Your task to perform on an android device: Show me productivity apps on the Play Store Image 0: 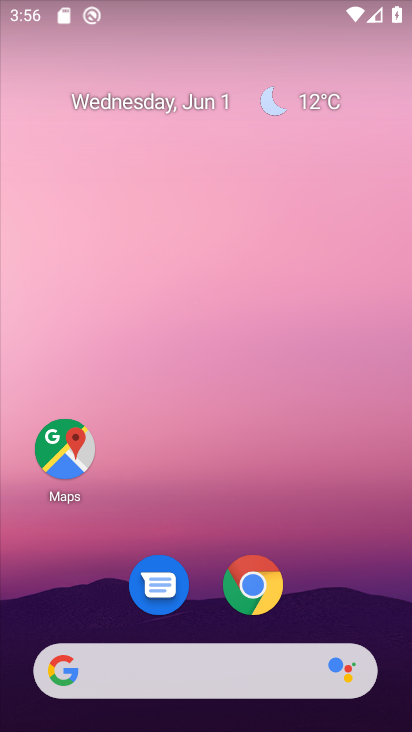
Step 0: drag from (330, 588) to (290, 3)
Your task to perform on an android device: Show me productivity apps on the Play Store Image 1: 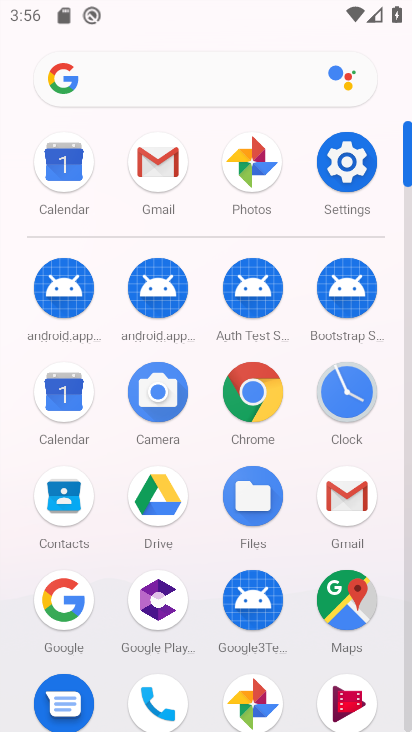
Step 1: drag from (190, 612) to (184, 288)
Your task to perform on an android device: Show me productivity apps on the Play Store Image 2: 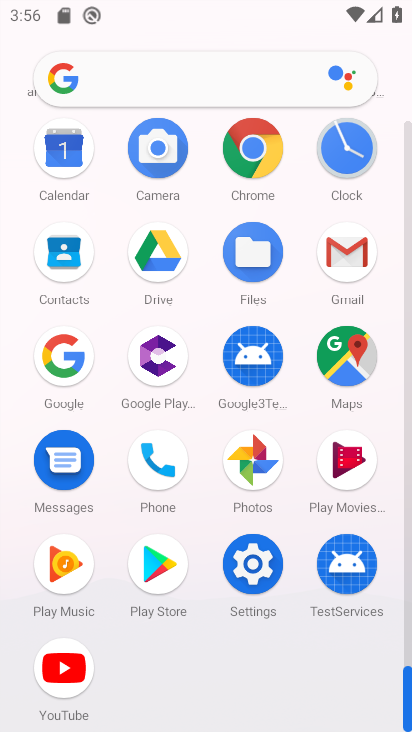
Step 2: click (162, 544)
Your task to perform on an android device: Show me productivity apps on the Play Store Image 3: 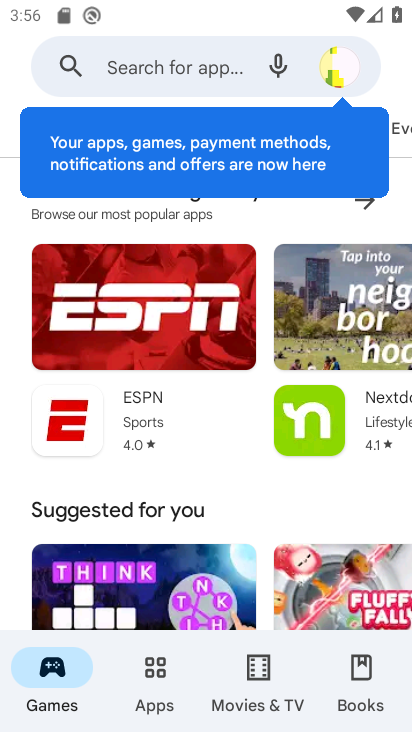
Step 3: click (194, 52)
Your task to perform on an android device: Show me productivity apps on the Play Store Image 4: 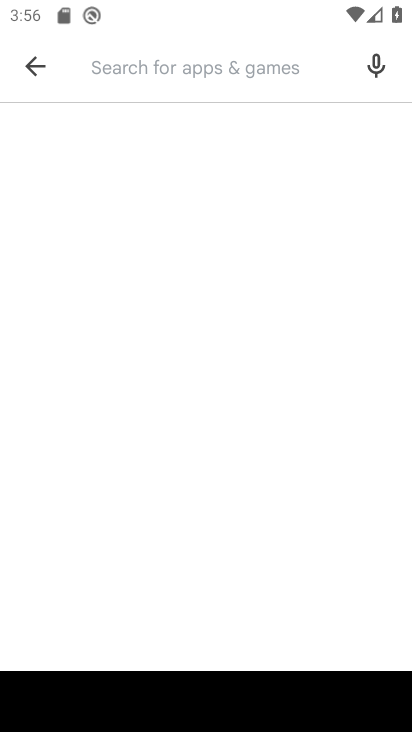
Step 4: click (34, 61)
Your task to perform on an android device: Show me productivity apps on the Play Store Image 5: 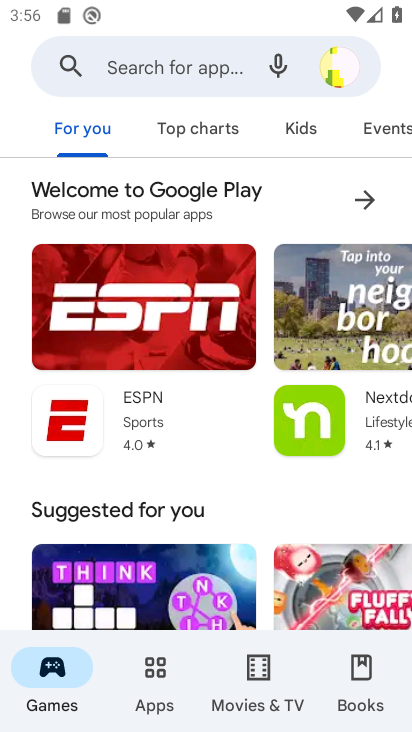
Step 5: click (146, 665)
Your task to perform on an android device: Show me productivity apps on the Play Store Image 6: 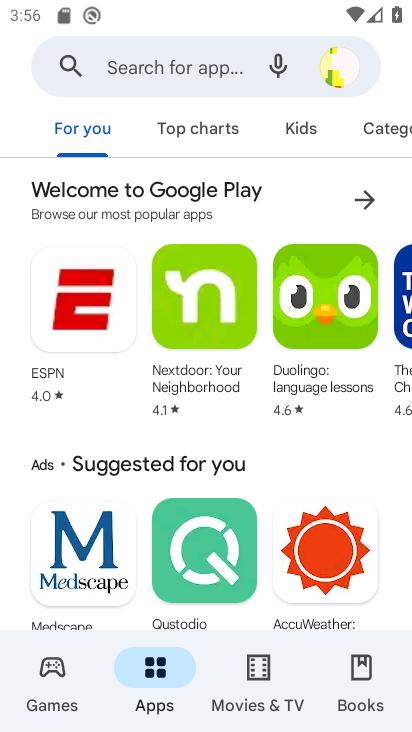
Step 6: click (382, 131)
Your task to perform on an android device: Show me productivity apps on the Play Store Image 7: 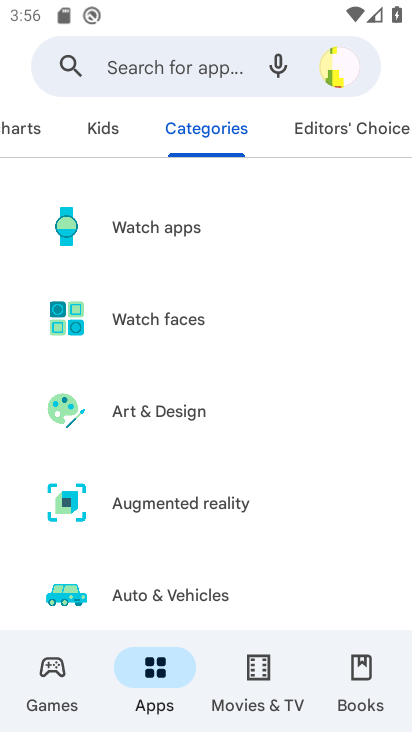
Step 7: drag from (243, 568) to (255, 4)
Your task to perform on an android device: Show me productivity apps on the Play Store Image 8: 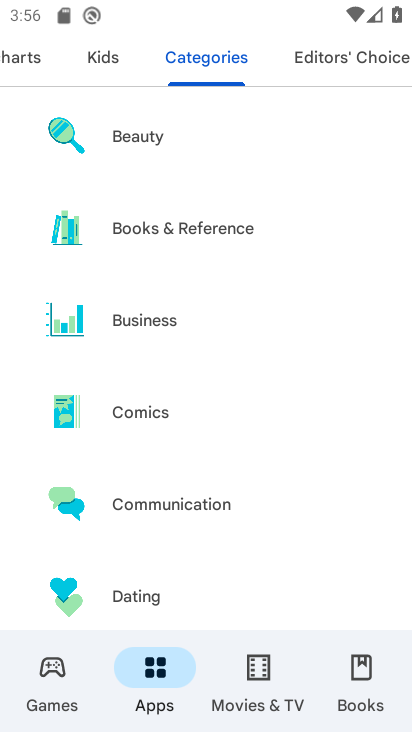
Step 8: drag from (265, 612) to (219, 15)
Your task to perform on an android device: Show me productivity apps on the Play Store Image 9: 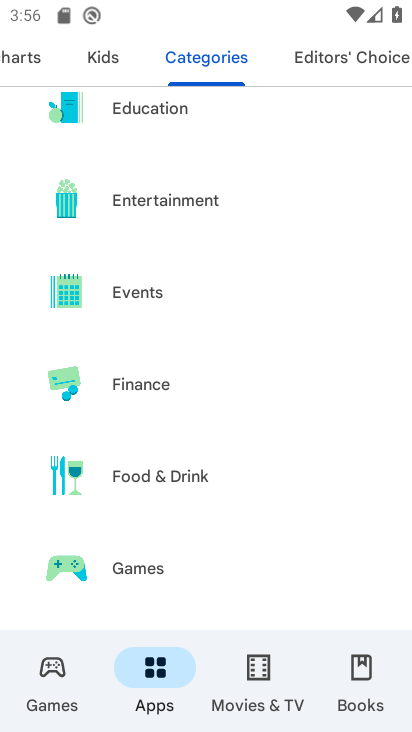
Step 9: drag from (263, 596) to (278, 0)
Your task to perform on an android device: Show me productivity apps on the Play Store Image 10: 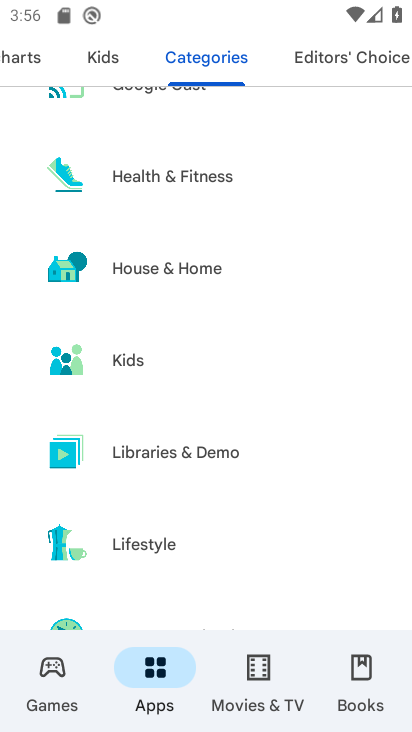
Step 10: drag from (254, 594) to (242, 153)
Your task to perform on an android device: Show me productivity apps on the Play Store Image 11: 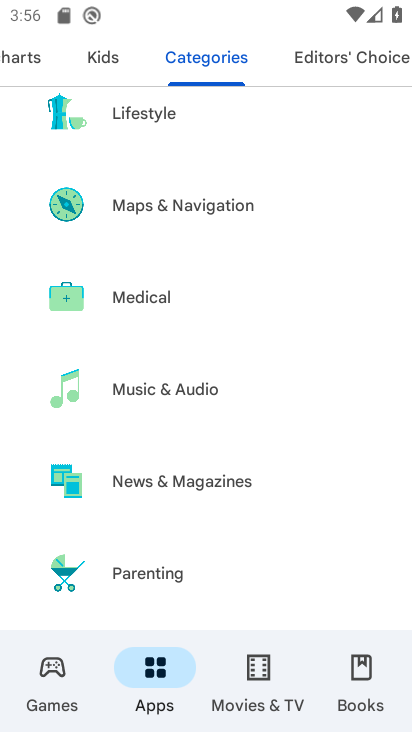
Step 11: drag from (261, 563) to (263, 243)
Your task to perform on an android device: Show me productivity apps on the Play Store Image 12: 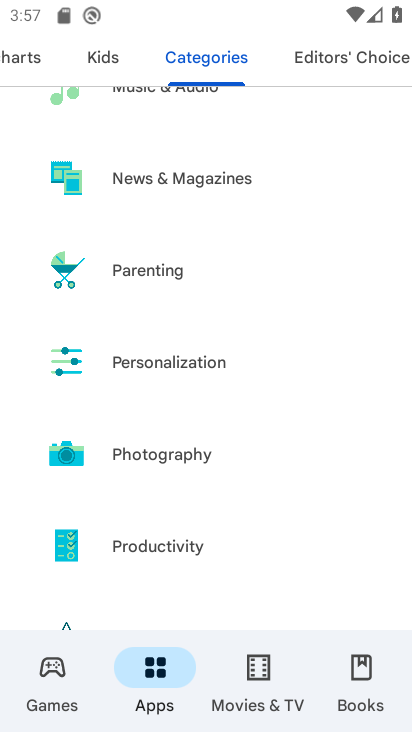
Step 12: click (204, 546)
Your task to perform on an android device: Show me productivity apps on the Play Store Image 13: 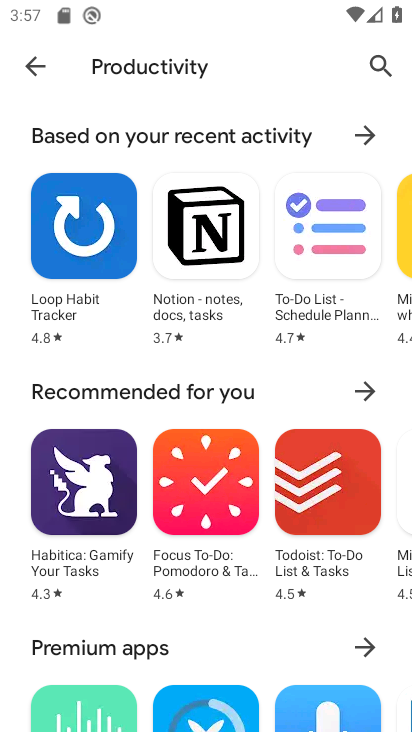
Step 13: drag from (314, 593) to (299, 135)
Your task to perform on an android device: Show me productivity apps on the Play Store Image 14: 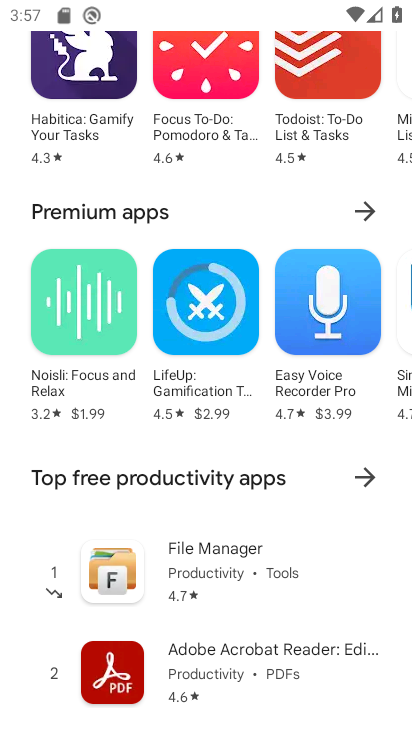
Step 14: click (354, 469)
Your task to perform on an android device: Show me productivity apps on the Play Store Image 15: 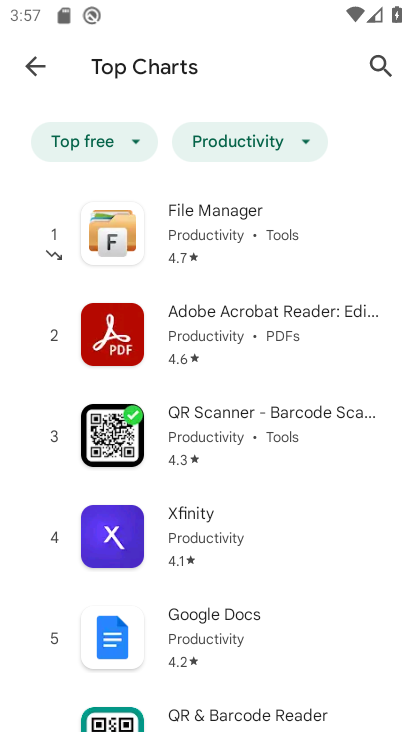
Step 15: task complete